Your task to perform on an android device: delete a single message in the gmail app Image 0: 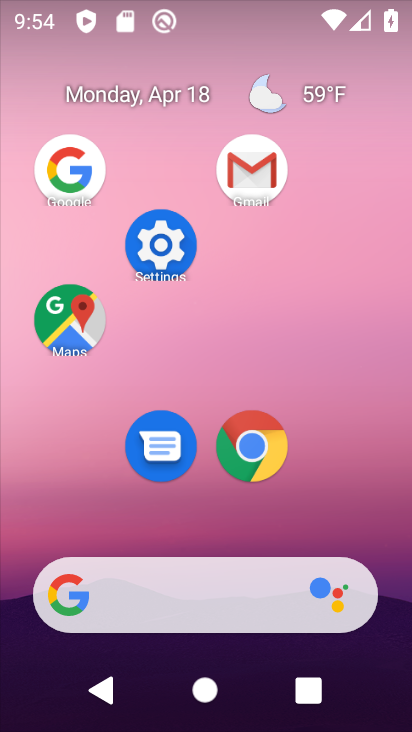
Step 0: click (259, 158)
Your task to perform on an android device: delete a single message in the gmail app Image 1: 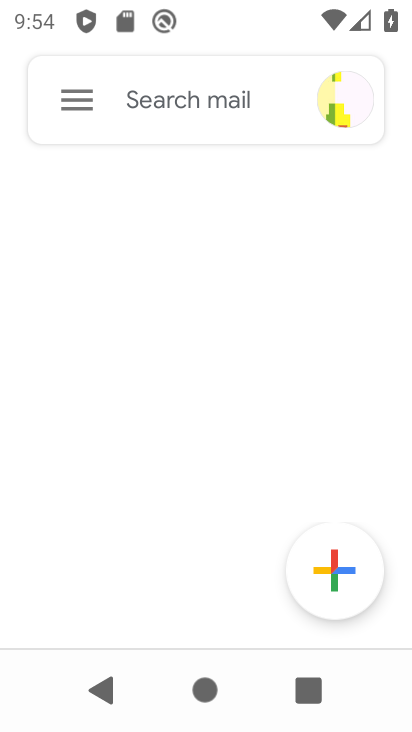
Step 1: click (79, 84)
Your task to perform on an android device: delete a single message in the gmail app Image 2: 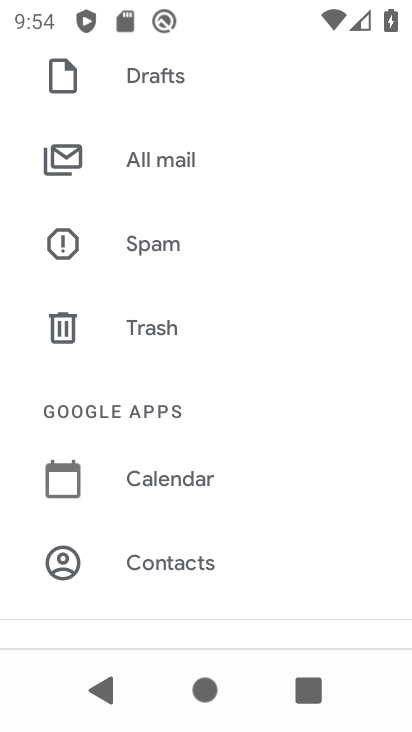
Step 2: click (201, 158)
Your task to perform on an android device: delete a single message in the gmail app Image 3: 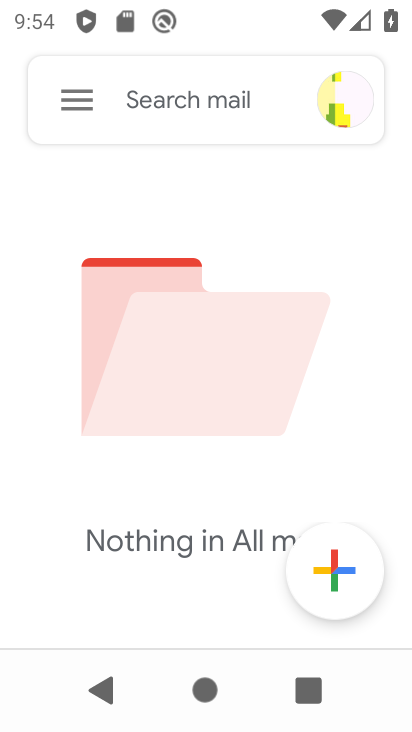
Step 3: task complete